Your task to perform on an android device: turn off wifi Image 0: 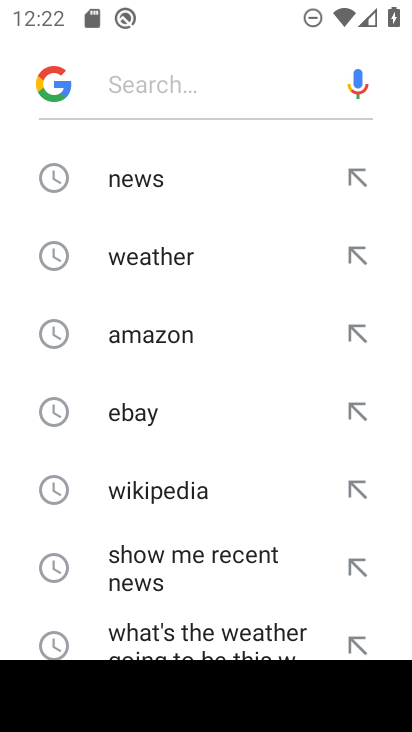
Step 0: press back button
Your task to perform on an android device: turn off wifi Image 1: 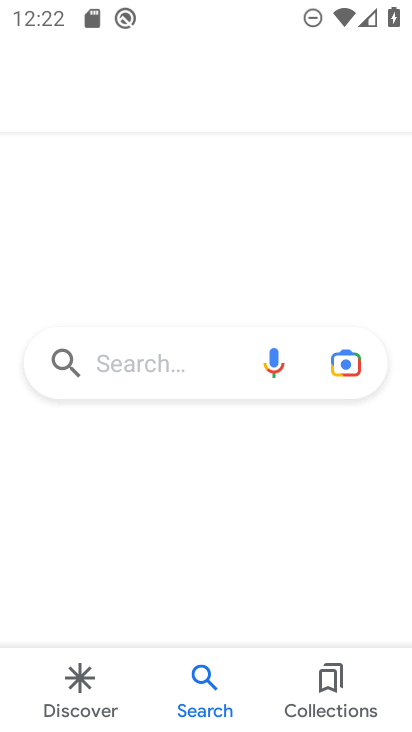
Step 1: drag from (103, 14) to (204, 697)
Your task to perform on an android device: turn off wifi Image 2: 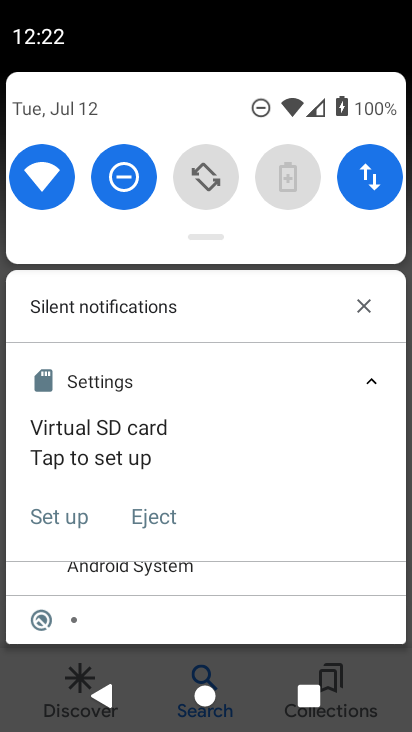
Step 2: click (46, 193)
Your task to perform on an android device: turn off wifi Image 3: 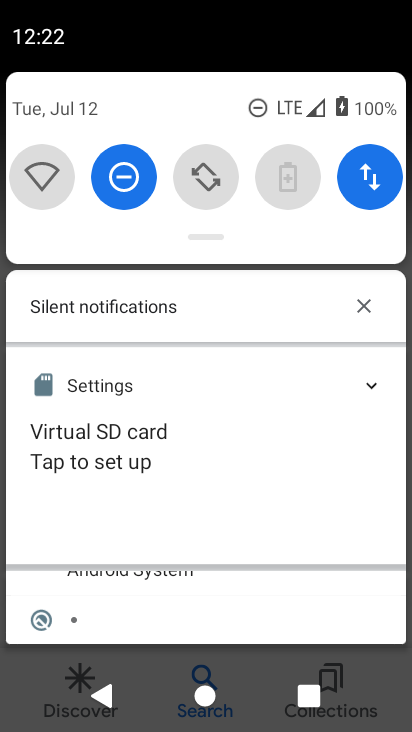
Step 3: task complete